Your task to perform on an android device: change the upload size in google photos Image 0: 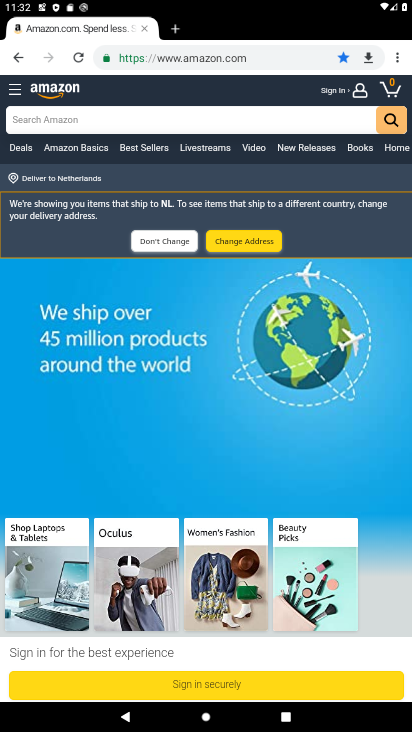
Step 0: press home button
Your task to perform on an android device: change the upload size in google photos Image 1: 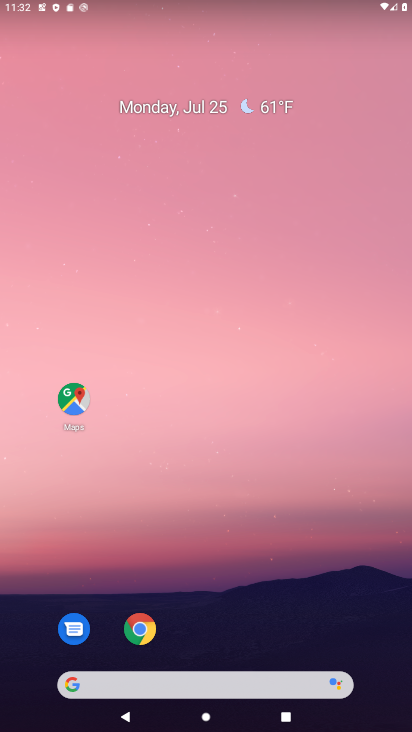
Step 1: drag from (196, 642) to (198, 157)
Your task to perform on an android device: change the upload size in google photos Image 2: 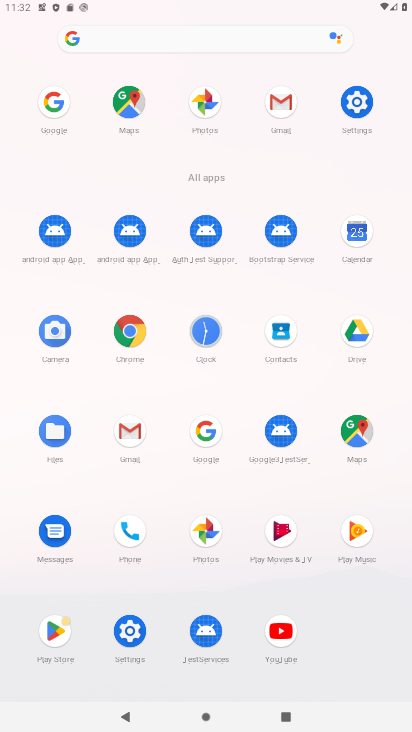
Step 2: click (207, 109)
Your task to perform on an android device: change the upload size in google photos Image 3: 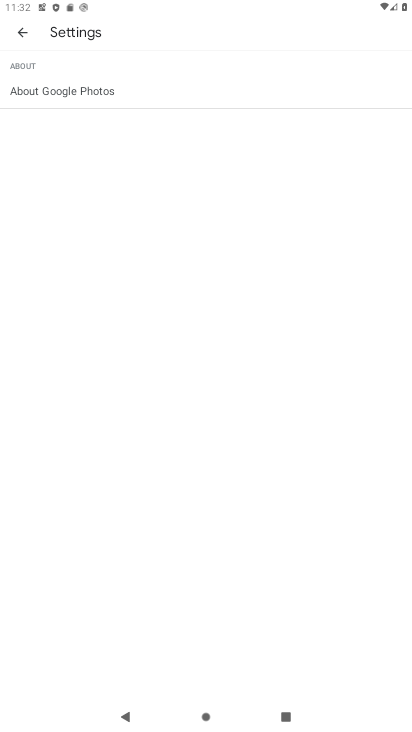
Step 3: click (19, 42)
Your task to perform on an android device: change the upload size in google photos Image 4: 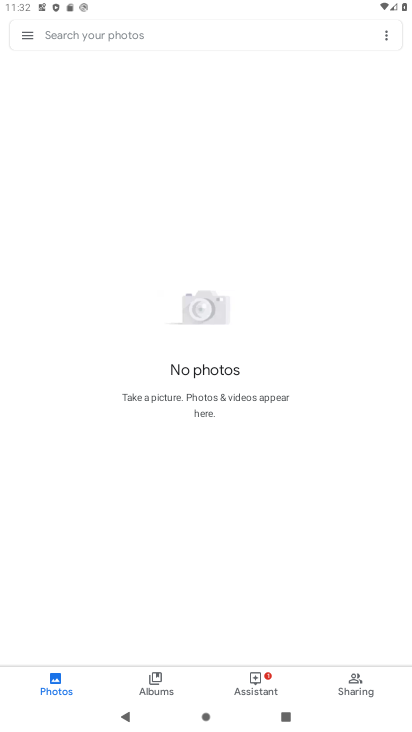
Step 4: click (18, 41)
Your task to perform on an android device: change the upload size in google photos Image 5: 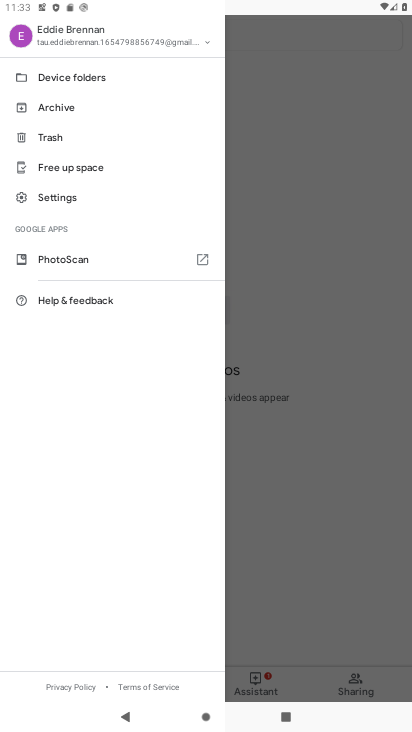
Step 5: click (83, 200)
Your task to perform on an android device: change the upload size in google photos Image 6: 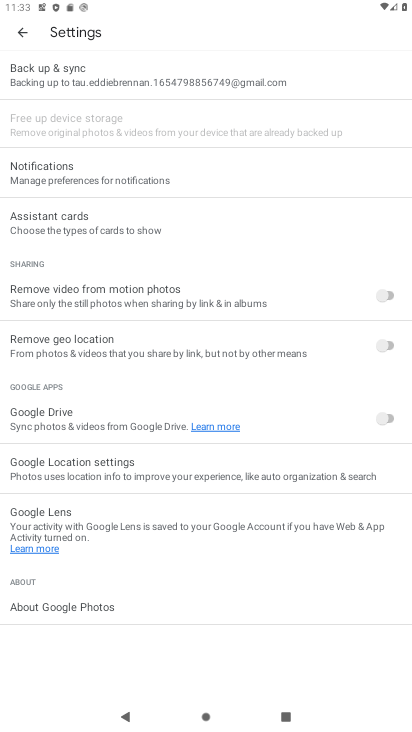
Step 6: click (93, 89)
Your task to perform on an android device: change the upload size in google photos Image 7: 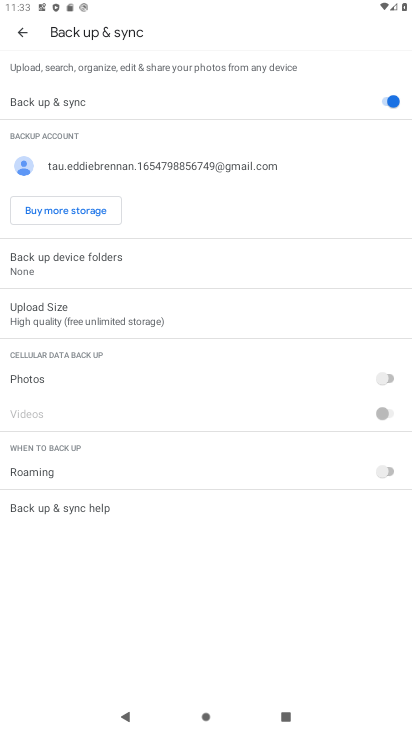
Step 7: click (96, 323)
Your task to perform on an android device: change the upload size in google photos Image 8: 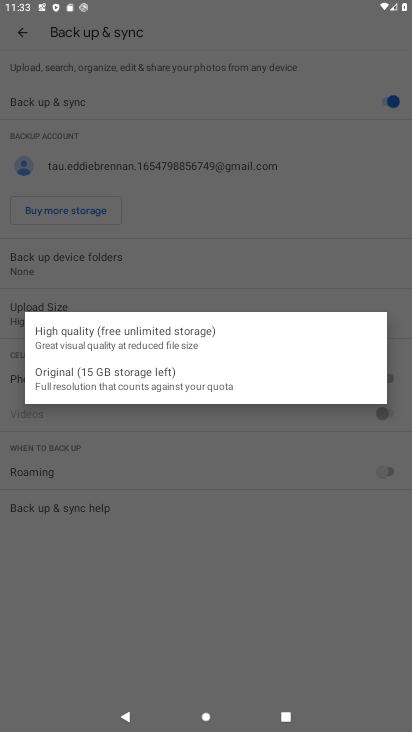
Step 8: click (100, 398)
Your task to perform on an android device: change the upload size in google photos Image 9: 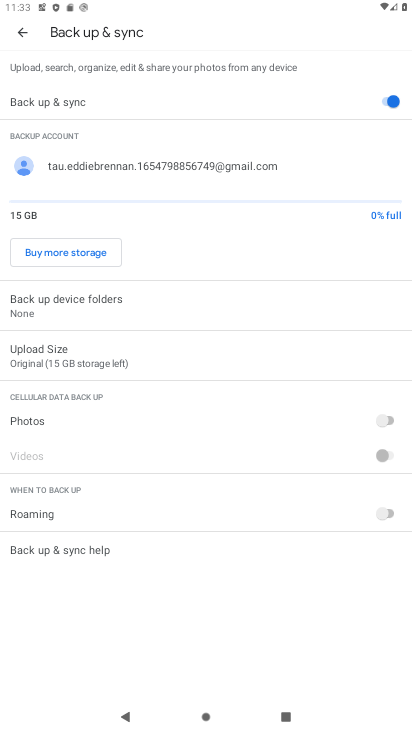
Step 9: task complete